Your task to perform on an android device: choose inbox layout in the gmail app Image 0: 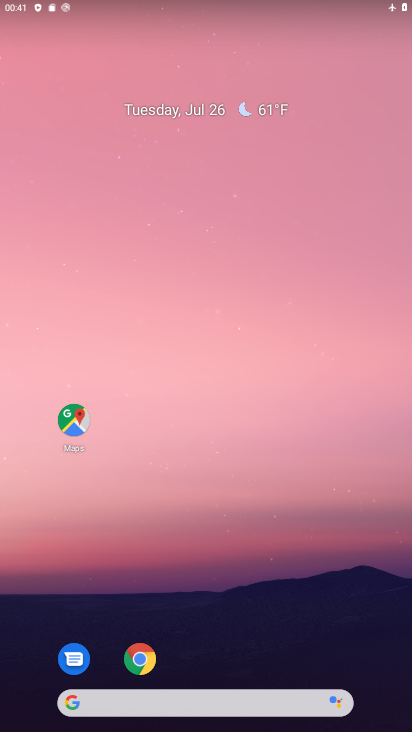
Step 0: drag from (290, 617) to (261, 100)
Your task to perform on an android device: choose inbox layout in the gmail app Image 1: 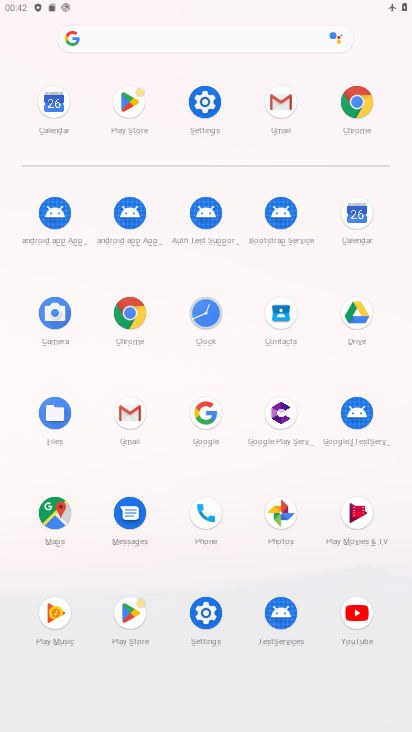
Step 1: click (275, 100)
Your task to perform on an android device: choose inbox layout in the gmail app Image 2: 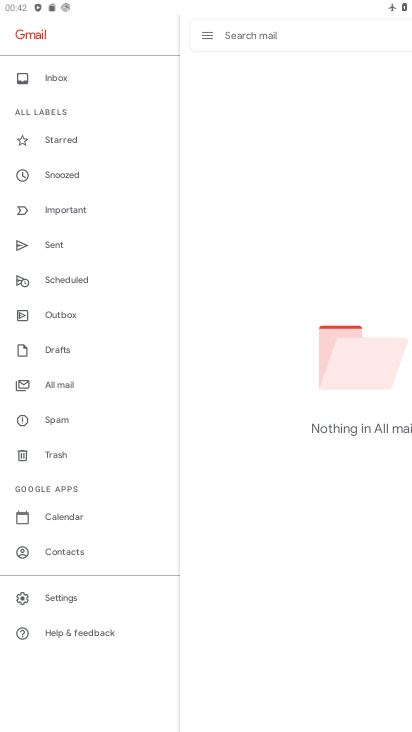
Step 2: click (71, 597)
Your task to perform on an android device: choose inbox layout in the gmail app Image 3: 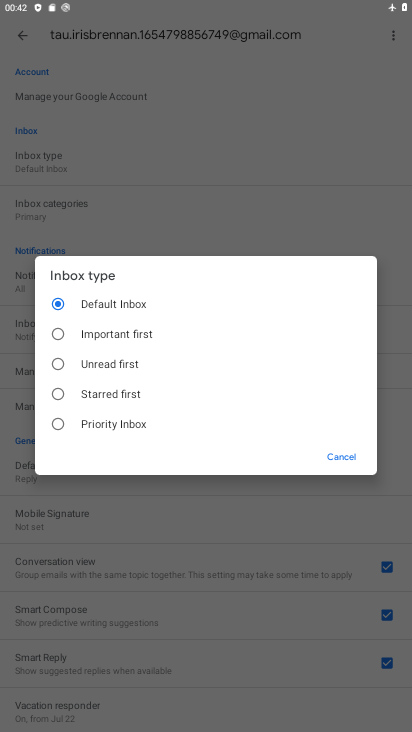
Step 3: task complete